Your task to perform on an android device: Search for a new foundation on Sephora Image 0: 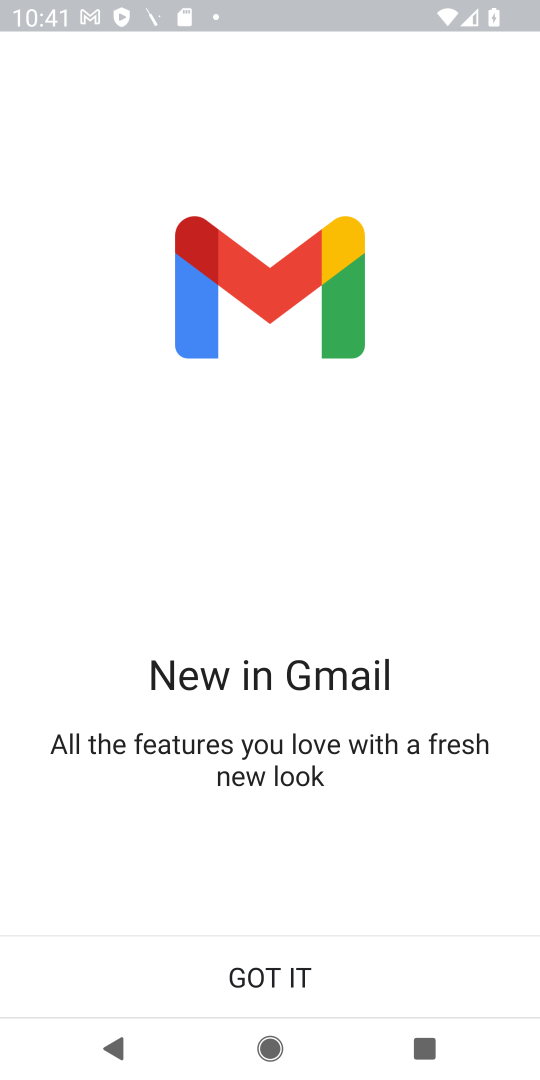
Step 0: press home button
Your task to perform on an android device: Search for a new foundation on Sephora Image 1: 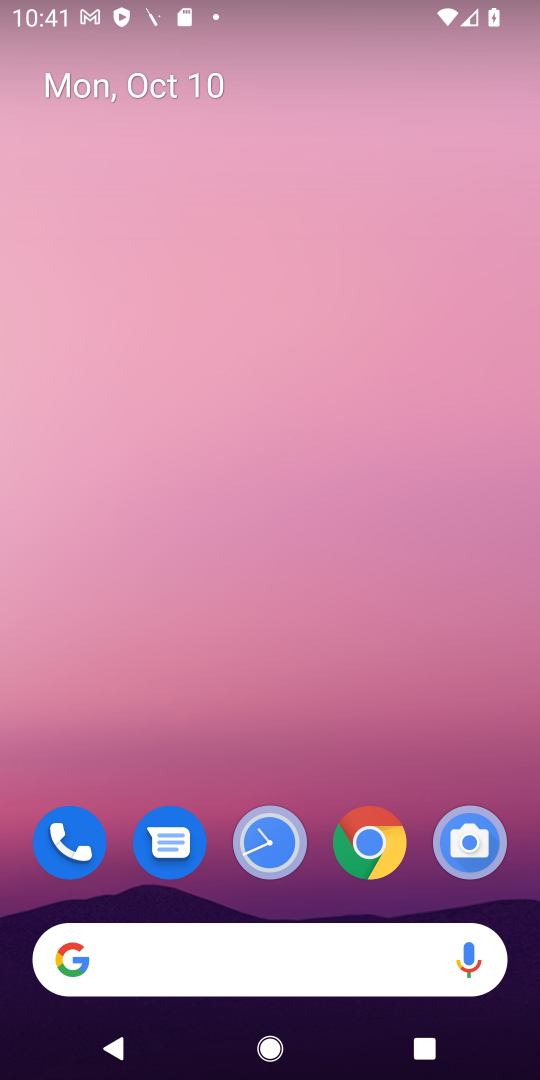
Step 1: click (400, 859)
Your task to perform on an android device: Search for a new foundation on Sephora Image 2: 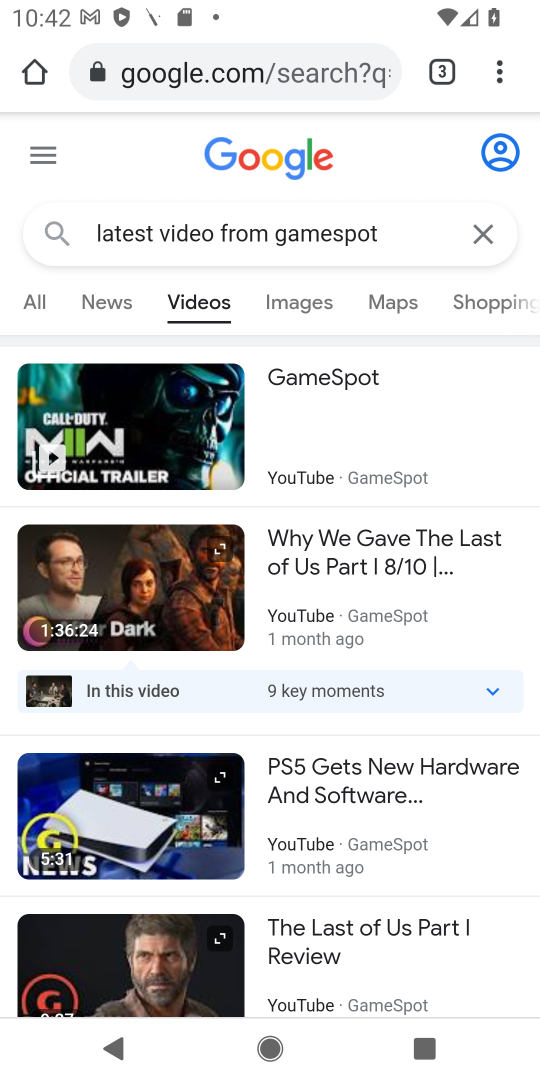
Step 2: click (328, 77)
Your task to perform on an android device: Search for a new foundation on Sephora Image 3: 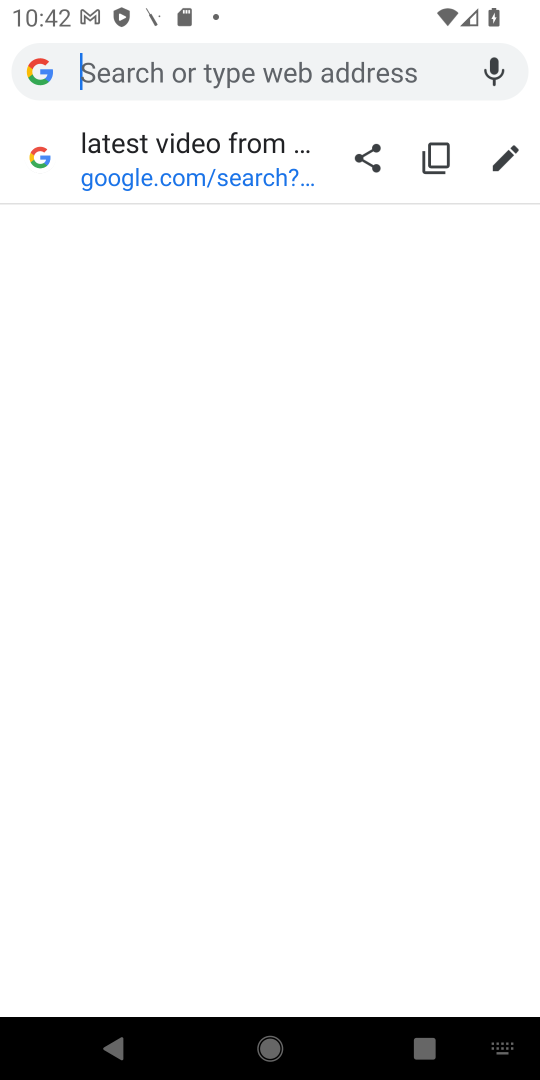
Step 3: type " new foundation on Sephora"
Your task to perform on an android device: Search for a new foundation on Sephora Image 4: 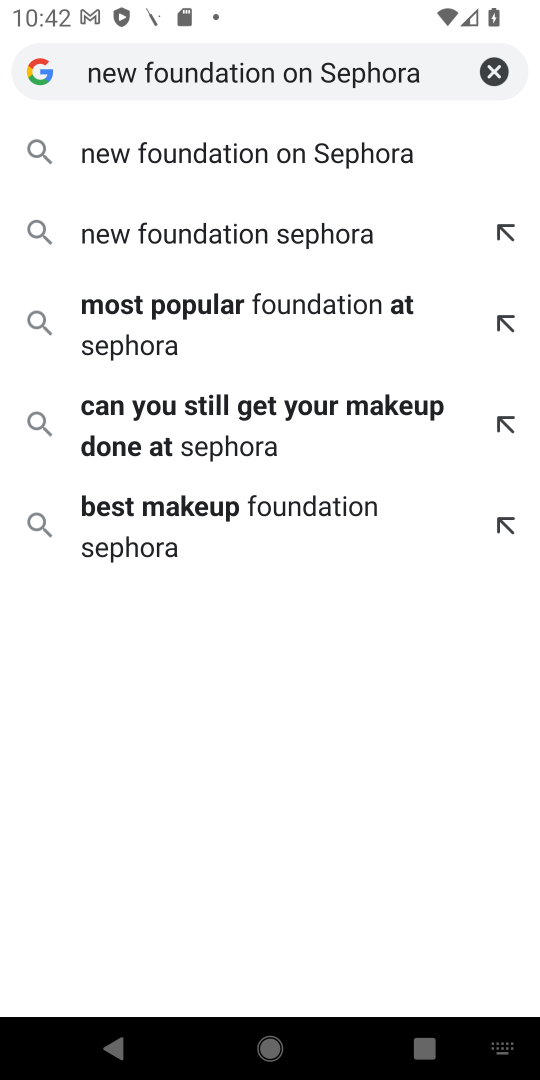
Step 4: click (223, 163)
Your task to perform on an android device: Search for a new foundation on Sephora Image 5: 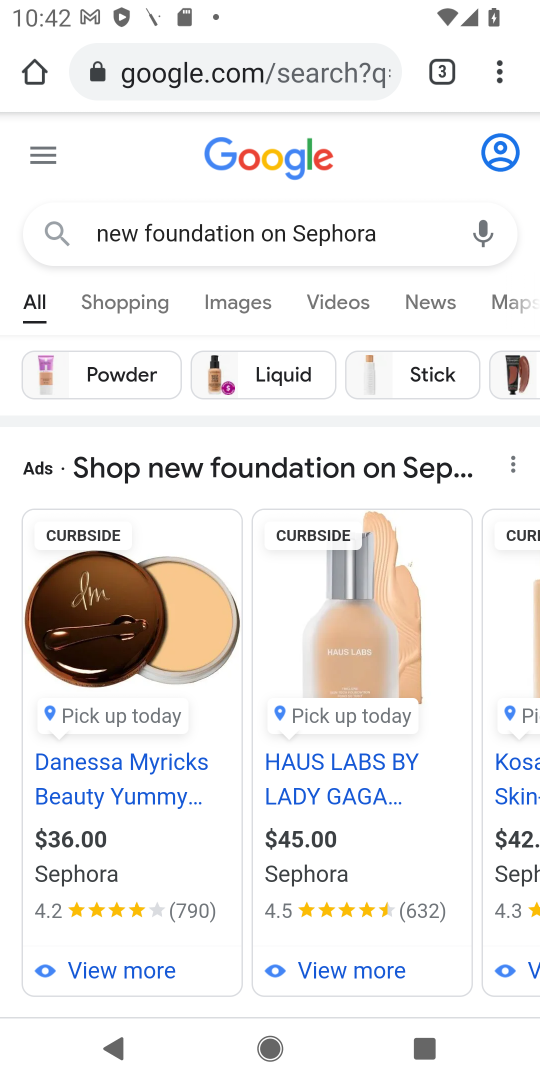
Step 5: task complete